Your task to perform on an android device: What's on my calendar tomorrow? Image 0: 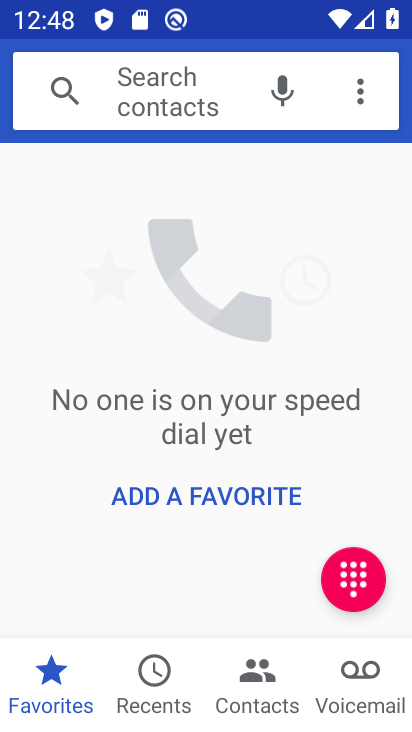
Step 0: press home button
Your task to perform on an android device: What's on my calendar tomorrow? Image 1: 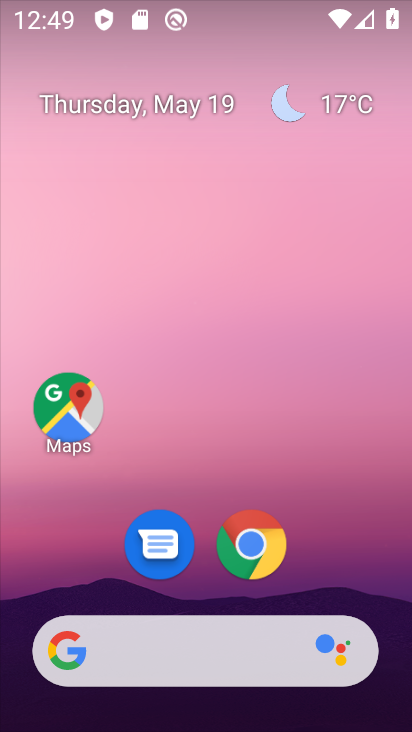
Step 1: drag from (214, 722) to (216, 195)
Your task to perform on an android device: What's on my calendar tomorrow? Image 2: 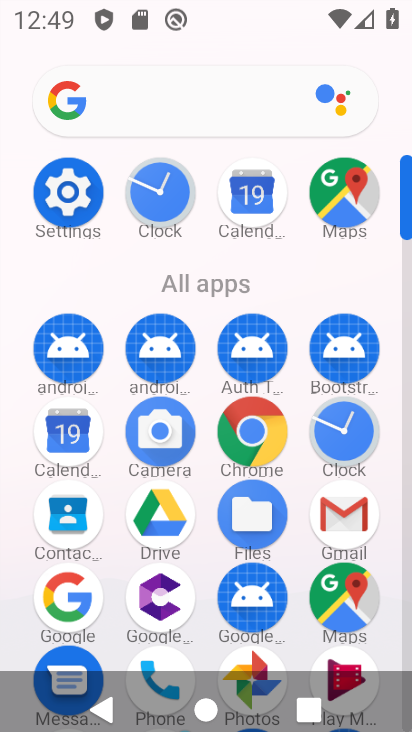
Step 2: click (58, 437)
Your task to perform on an android device: What's on my calendar tomorrow? Image 3: 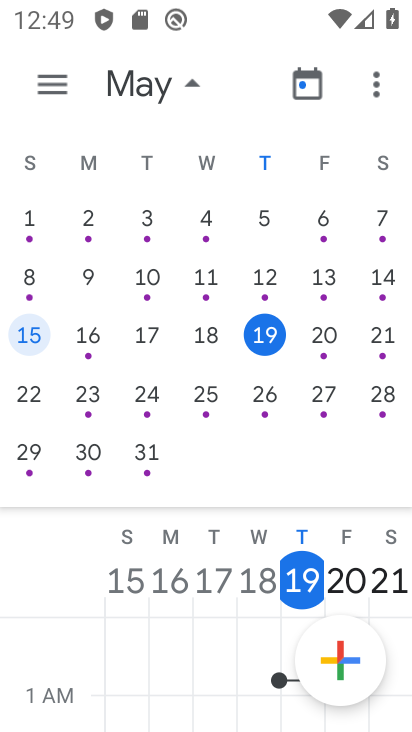
Step 3: click (315, 335)
Your task to perform on an android device: What's on my calendar tomorrow? Image 4: 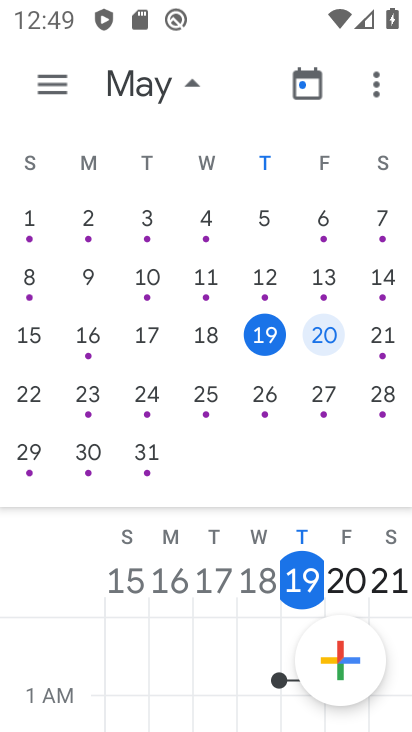
Step 4: click (323, 322)
Your task to perform on an android device: What's on my calendar tomorrow? Image 5: 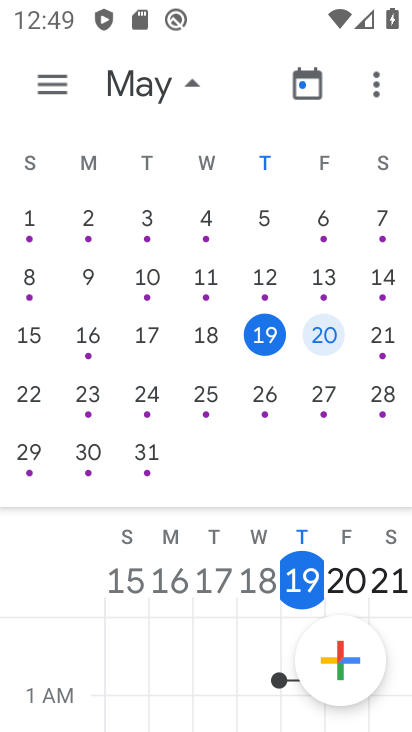
Step 5: click (194, 83)
Your task to perform on an android device: What's on my calendar tomorrow? Image 6: 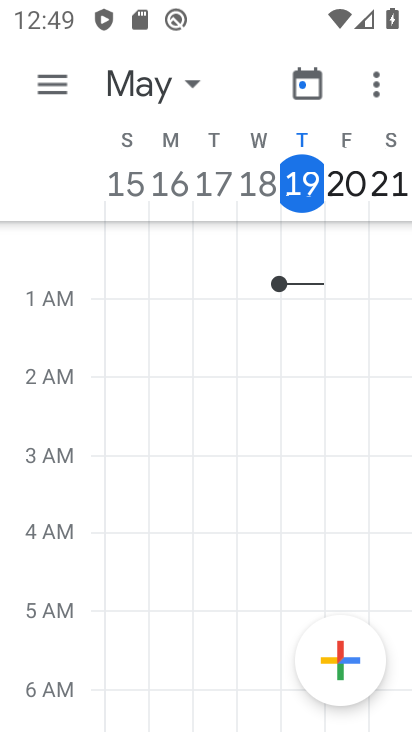
Step 6: click (298, 183)
Your task to perform on an android device: What's on my calendar tomorrow? Image 7: 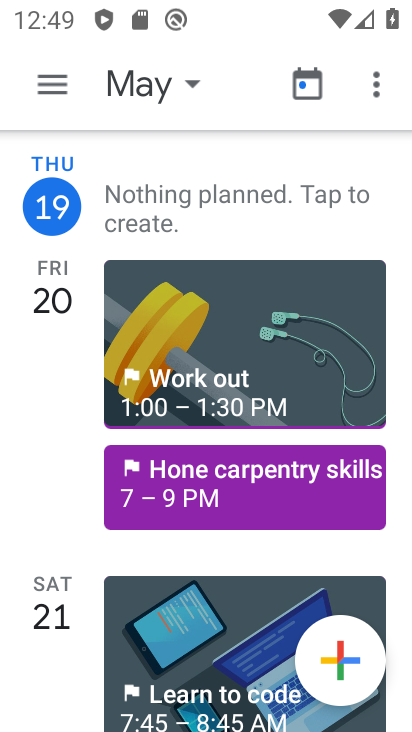
Step 7: task complete